Your task to perform on an android device: open app "Booking.com: Hotels and more" (install if not already installed) and go to login screen Image 0: 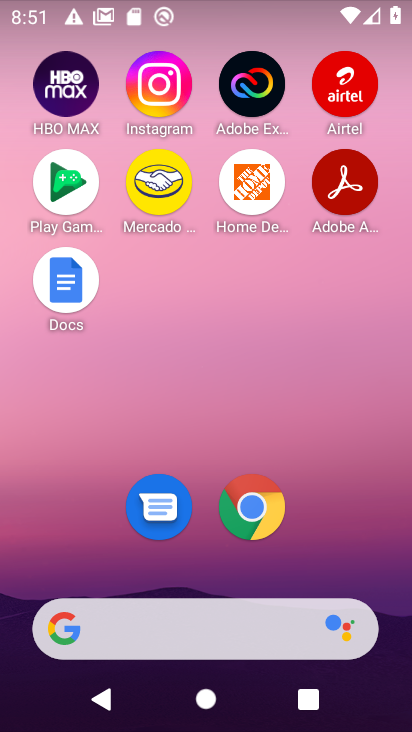
Step 0: drag from (220, 315) to (265, 10)
Your task to perform on an android device: open app "Booking.com: Hotels and more" (install if not already installed) and go to login screen Image 1: 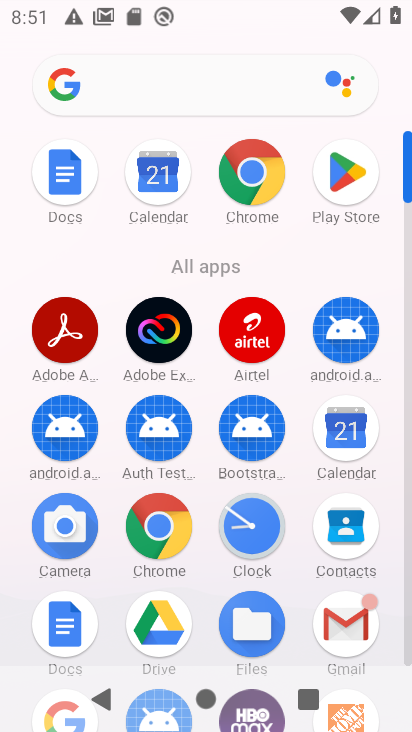
Step 1: click (347, 159)
Your task to perform on an android device: open app "Booking.com: Hotels and more" (install if not already installed) and go to login screen Image 2: 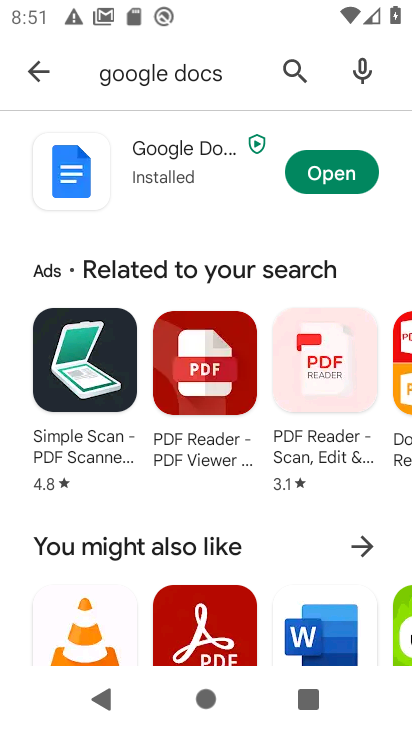
Step 2: click (41, 66)
Your task to perform on an android device: open app "Booking.com: Hotels and more" (install if not already installed) and go to login screen Image 3: 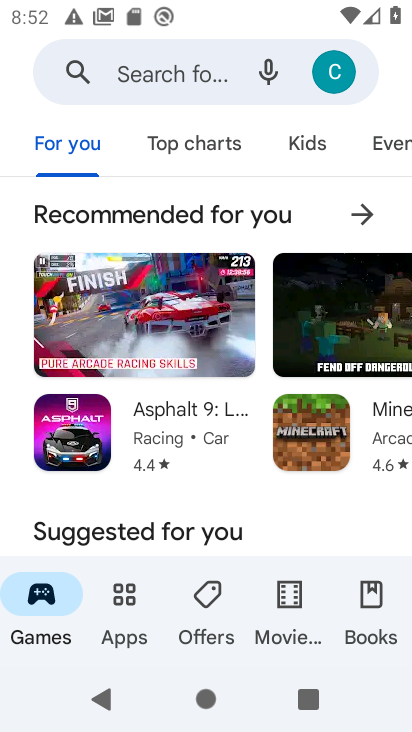
Step 3: click (150, 51)
Your task to perform on an android device: open app "Booking.com: Hotels and more" (install if not already installed) and go to login screen Image 4: 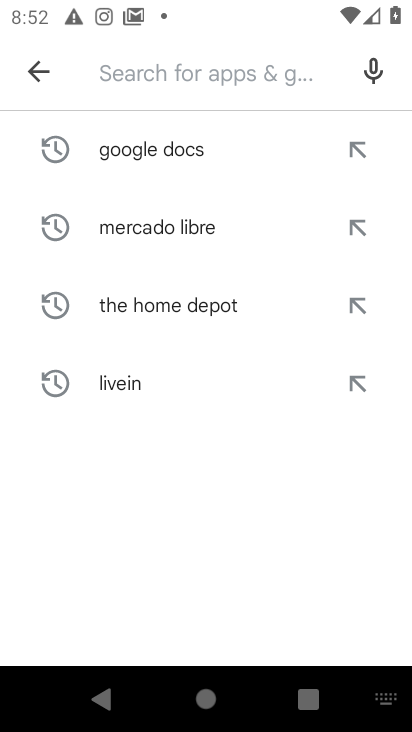
Step 4: type "Booking.com: Hotels and more"
Your task to perform on an android device: open app "Booking.com: Hotels and more" (install if not already installed) and go to login screen Image 5: 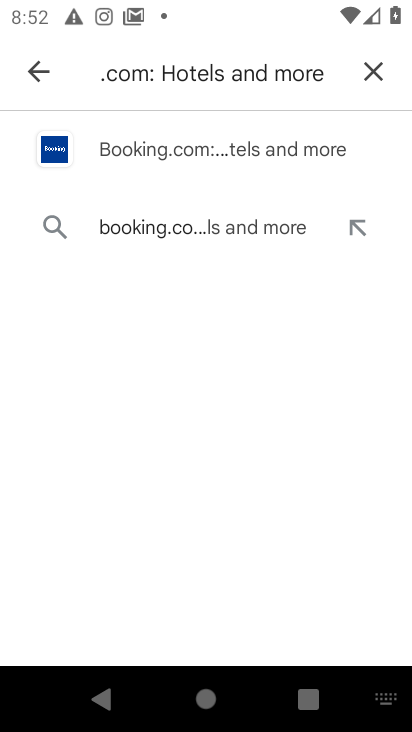
Step 5: click (161, 151)
Your task to perform on an android device: open app "Booking.com: Hotels and more" (install if not already installed) and go to login screen Image 6: 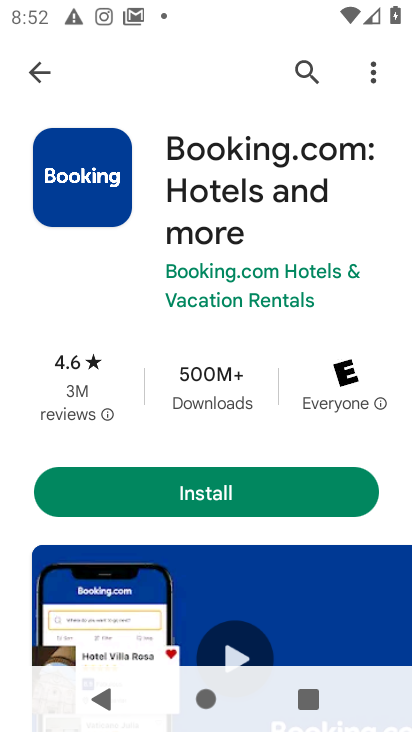
Step 6: click (197, 498)
Your task to perform on an android device: open app "Booking.com: Hotels and more" (install if not already installed) and go to login screen Image 7: 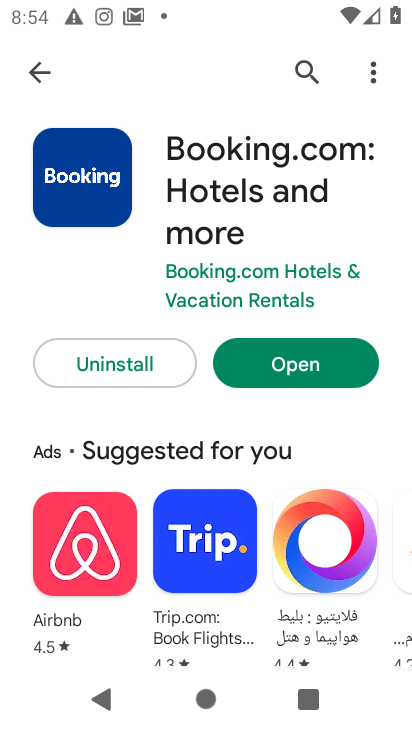
Step 7: click (325, 367)
Your task to perform on an android device: open app "Booking.com: Hotels and more" (install if not already installed) and go to login screen Image 8: 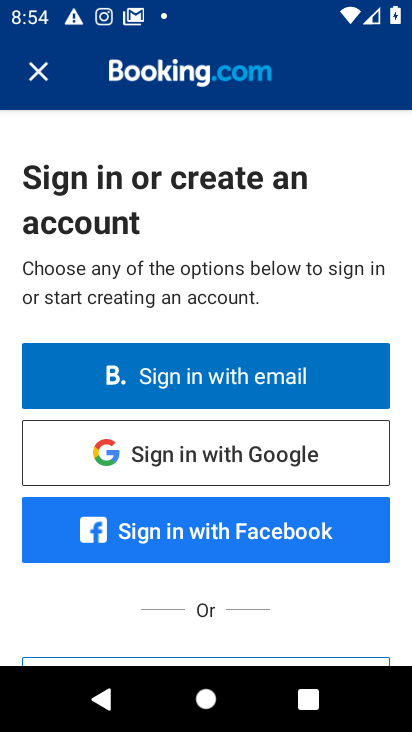
Step 8: task complete